Your task to perform on an android device: add a contact in the contacts app Image 0: 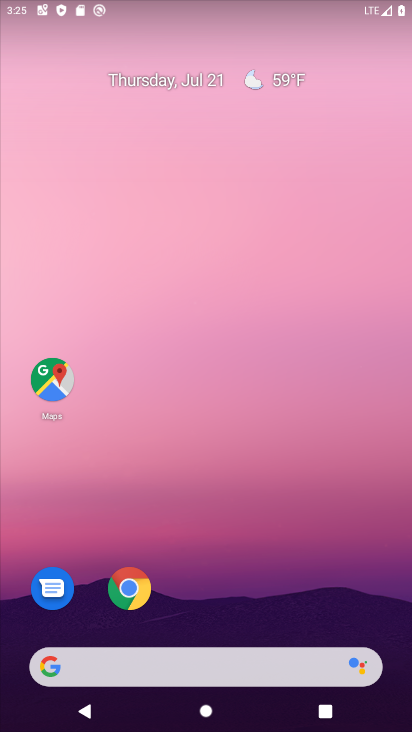
Step 0: drag from (253, 599) to (304, 22)
Your task to perform on an android device: add a contact in the contacts app Image 1: 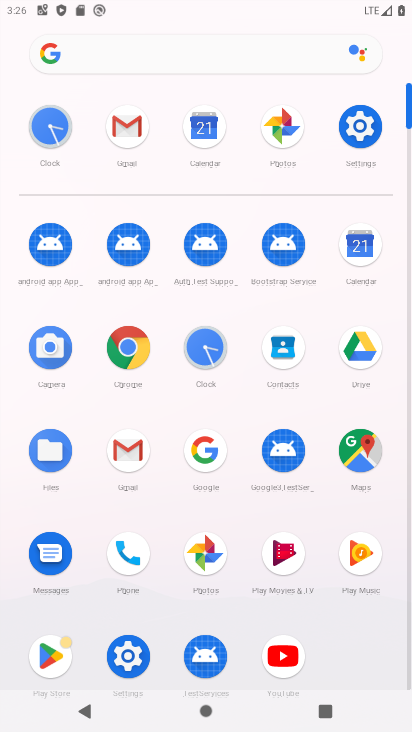
Step 1: click (270, 350)
Your task to perform on an android device: add a contact in the contacts app Image 2: 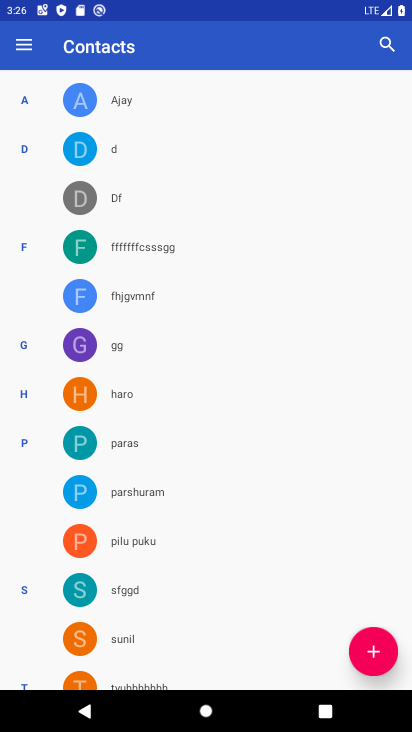
Step 2: click (367, 634)
Your task to perform on an android device: add a contact in the contacts app Image 3: 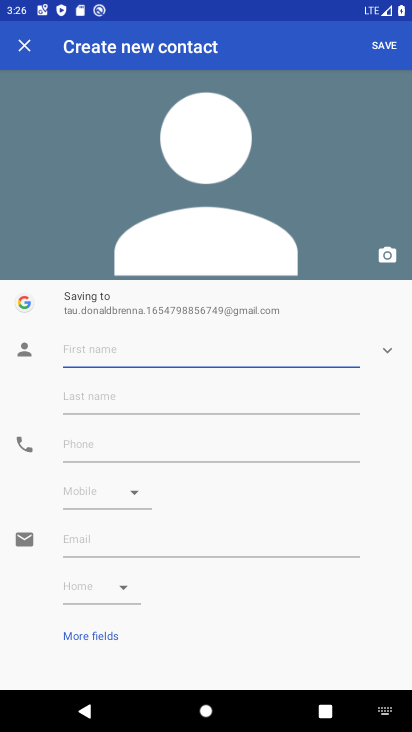
Step 3: type "njiopkml"
Your task to perform on an android device: add a contact in the contacts app Image 4: 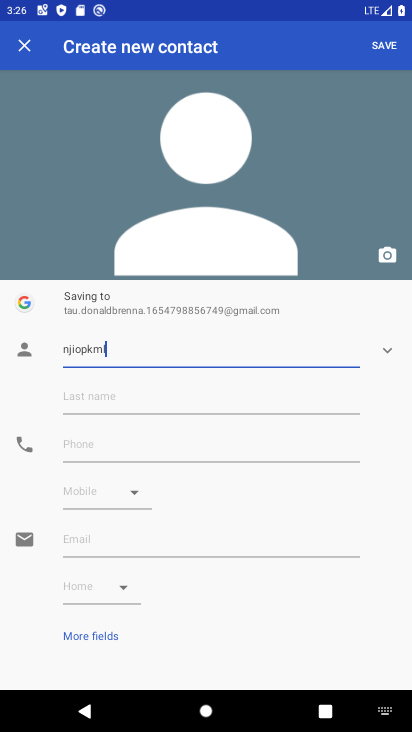
Step 4: click (83, 464)
Your task to perform on an android device: add a contact in the contacts app Image 5: 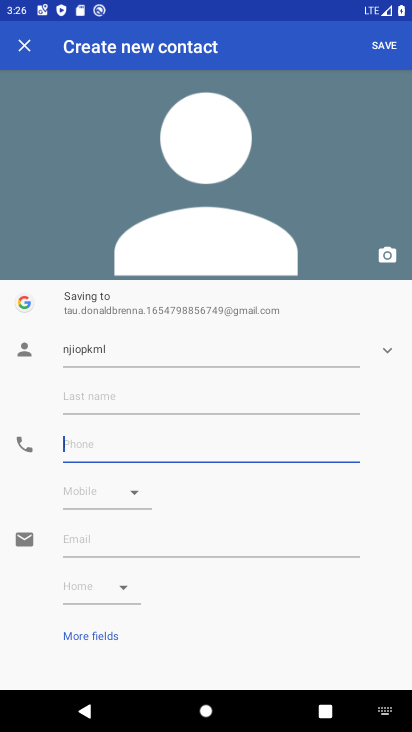
Step 5: type "9876544567"
Your task to perform on an android device: add a contact in the contacts app Image 6: 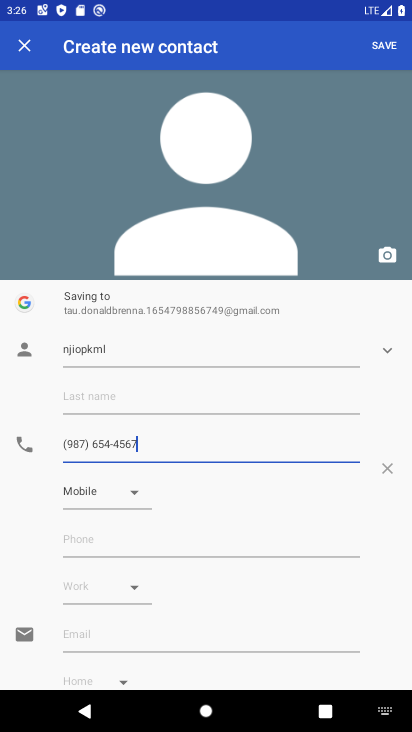
Step 6: click (387, 54)
Your task to perform on an android device: add a contact in the contacts app Image 7: 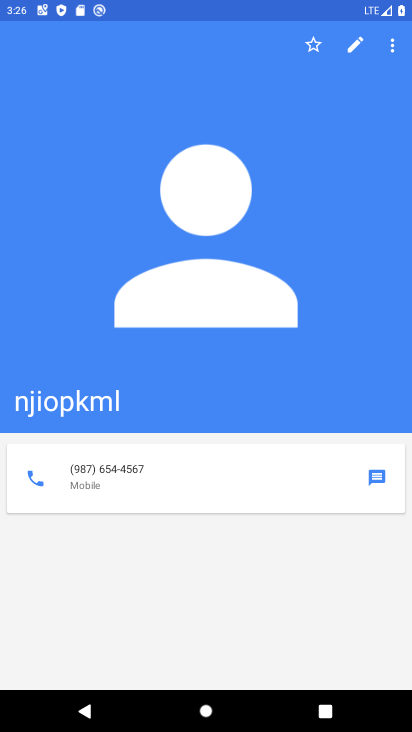
Step 7: task complete